Your task to perform on an android device: open app "McDonald's" (install if not already installed) and enter user name: "copes@yahoo.com" and password: "Rhenish" Image 0: 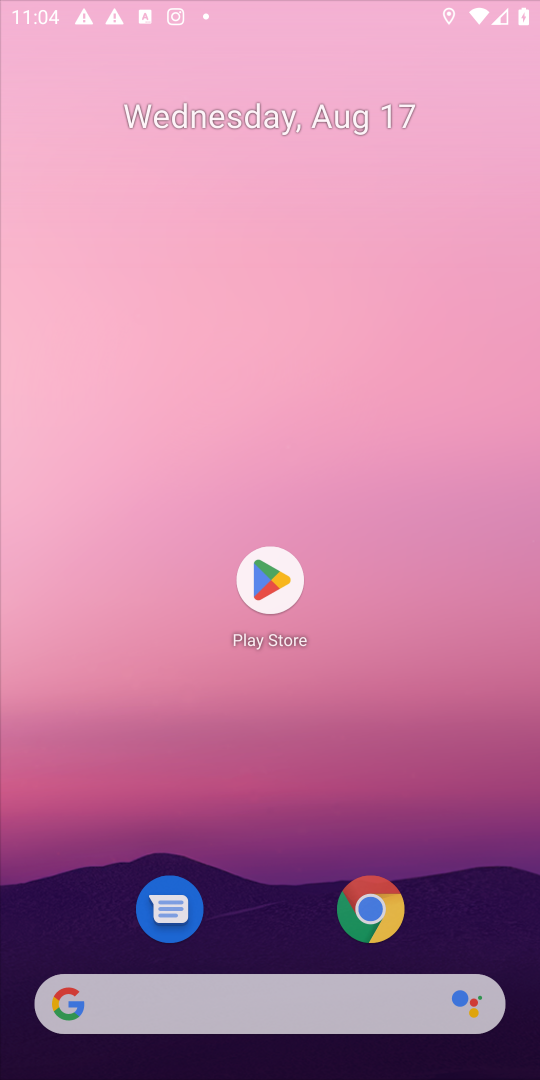
Step 0: press home button
Your task to perform on an android device: open app "McDonald's" (install if not already installed) and enter user name: "copes@yahoo.com" and password: "Rhenish" Image 1: 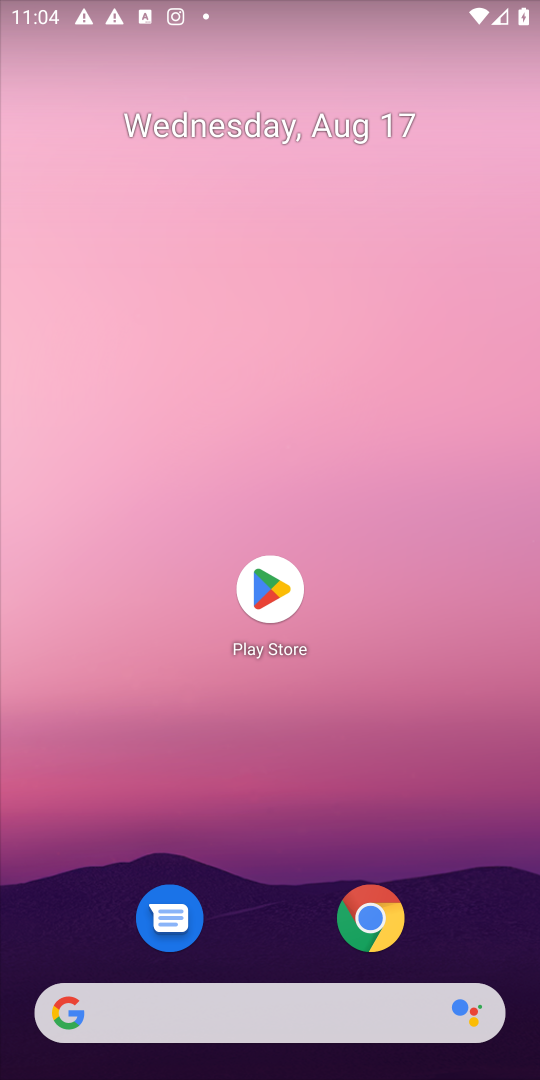
Step 1: click (274, 588)
Your task to perform on an android device: open app "McDonald's" (install if not already installed) and enter user name: "copes@yahoo.com" and password: "Rhenish" Image 2: 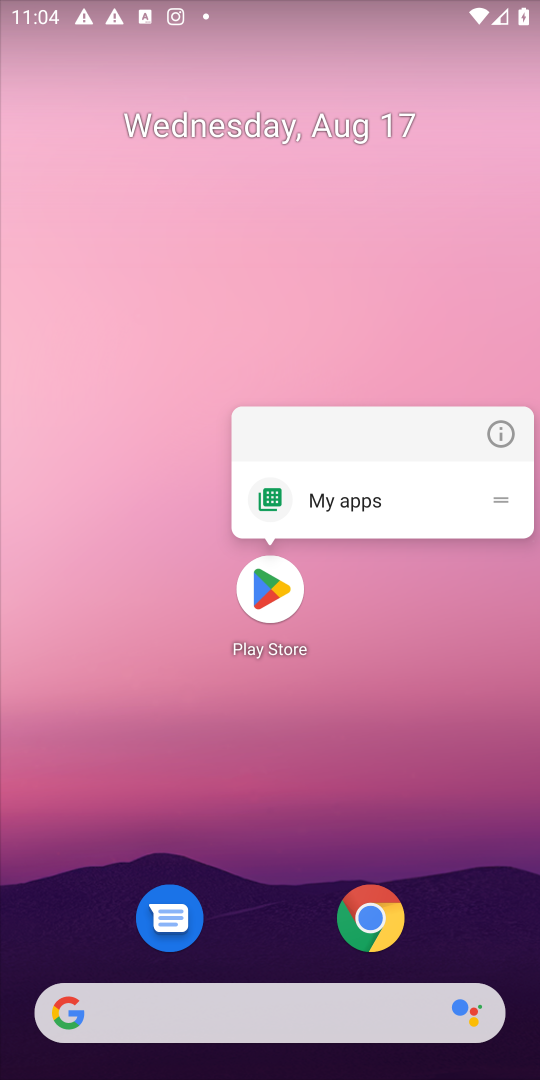
Step 2: click (274, 590)
Your task to perform on an android device: open app "McDonald's" (install if not already installed) and enter user name: "copes@yahoo.com" and password: "Rhenish" Image 3: 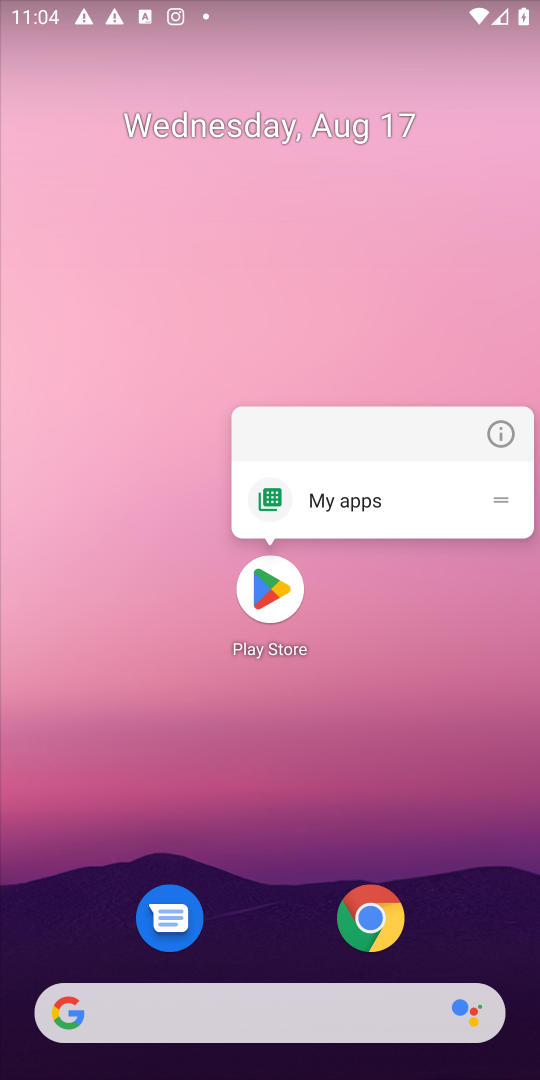
Step 3: click (265, 594)
Your task to perform on an android device: open app "McDonald's" (install if not already installed) and enter user name: "copes@yahoo.com" and password: "Rhenish" Image 4: 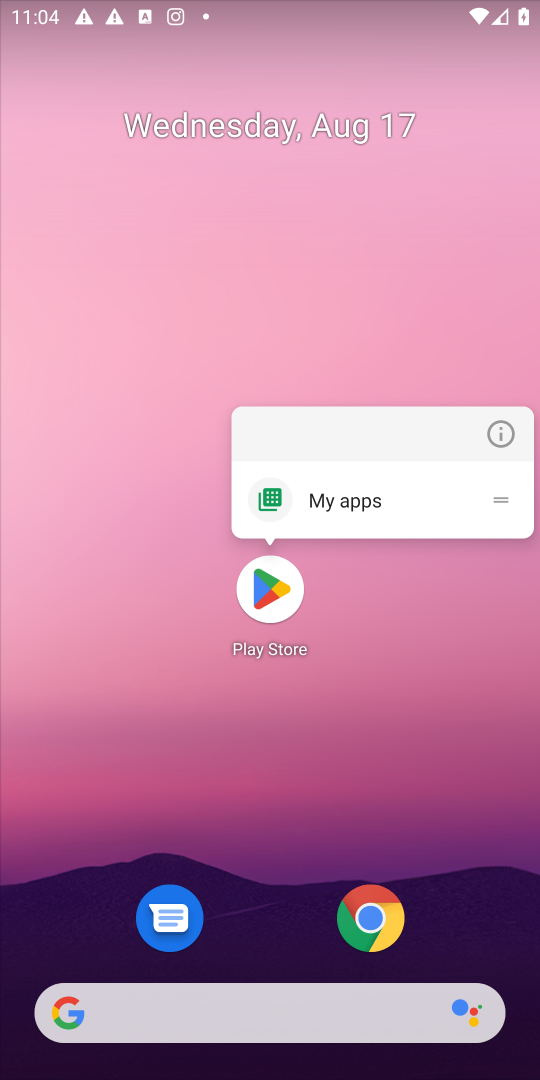
Step 4: click (265, 594)
Your task to perform on an android device: open app "McDonald's" (install if not already installed) and enter user name: "copes@yahoo.com" and password: "Rhenish" Image 5: 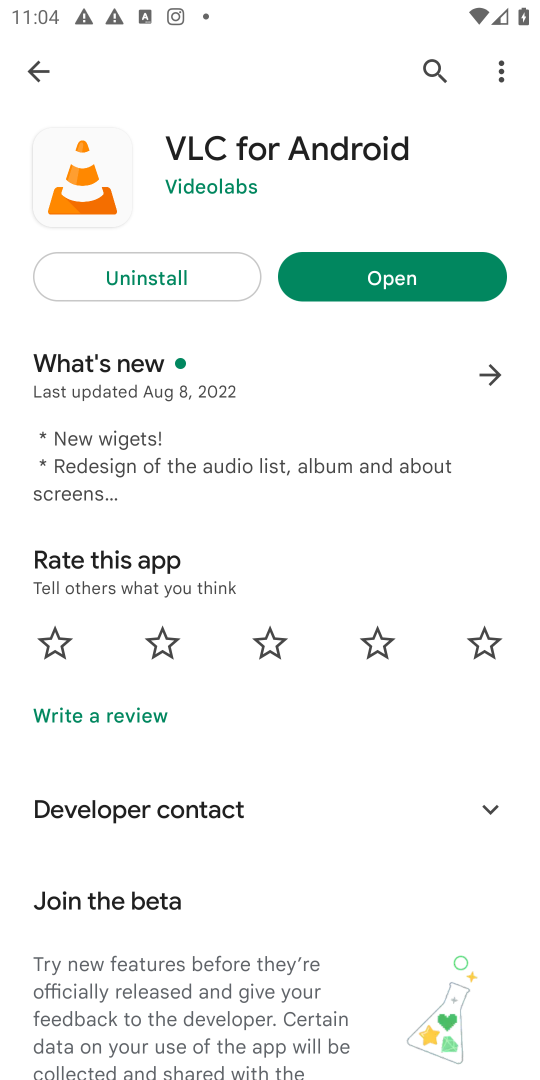
Step 5: click (429, 62)
Your task to perform on an android device: open app "McDonald's" (install if not already installed) and enter user name: "copes@yahoo.com" and password: "Rhenish" Image 6: 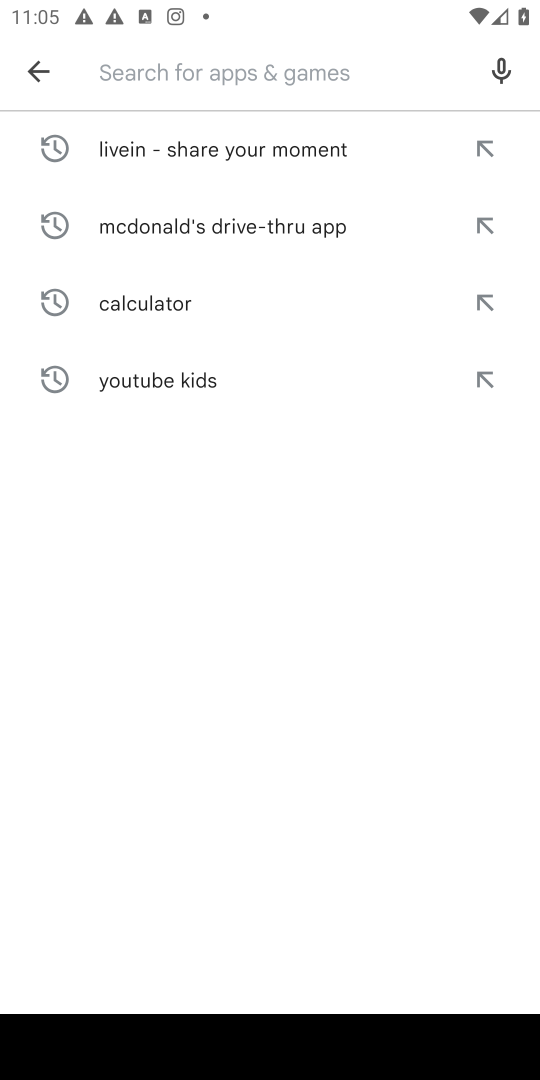
Step 6: type "McDonald's"
Your task to perform on an android device: open app "McDonald's" (install if not already installed) and enter user name: "copes@yahoo.com" and password: "Rhenish" Image 7: 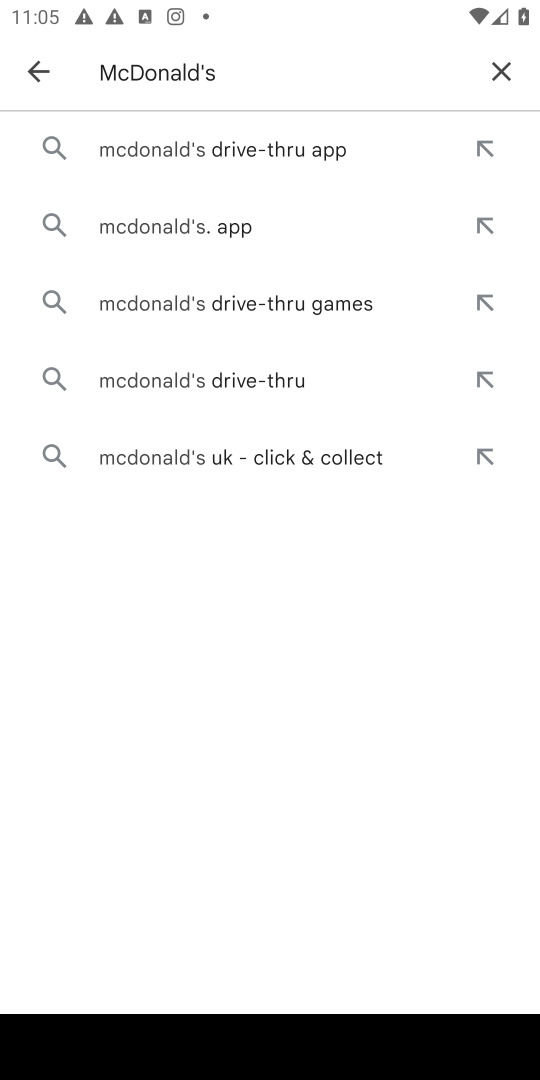
Step 7: click (255, 141)
Your task to perform on an android device: open app "McDonald's" (install if not already installed) and enter user name: "copes@yahoo.com" and password: "Rhenish" Image 8: 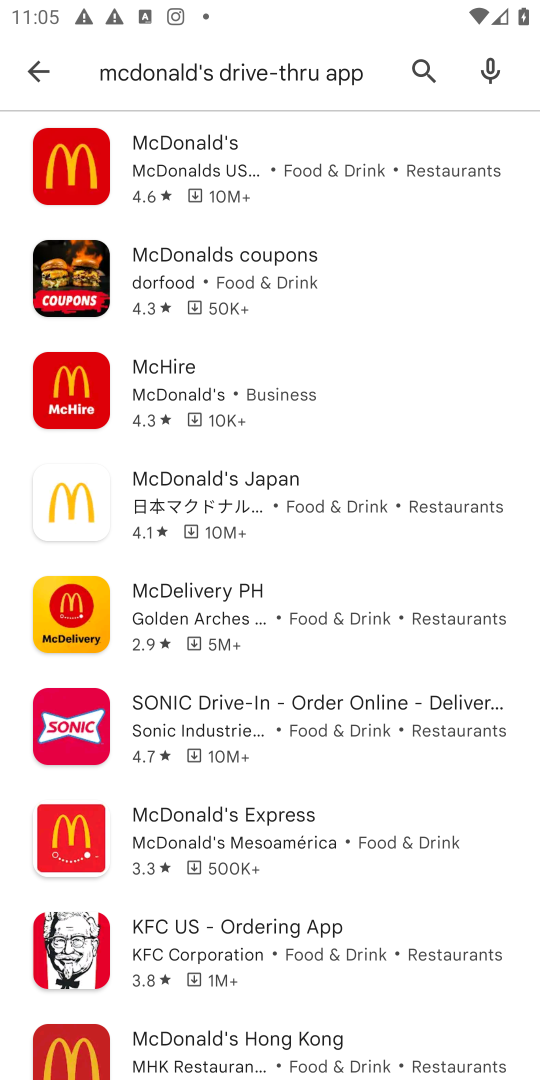
Step 8: click (205, 164)
Your task to perform on an android device: open app "McDonald's" (install if not already installed) and enter user name: "copes@yahoo.com" and password: "Rhenish" Image 9: 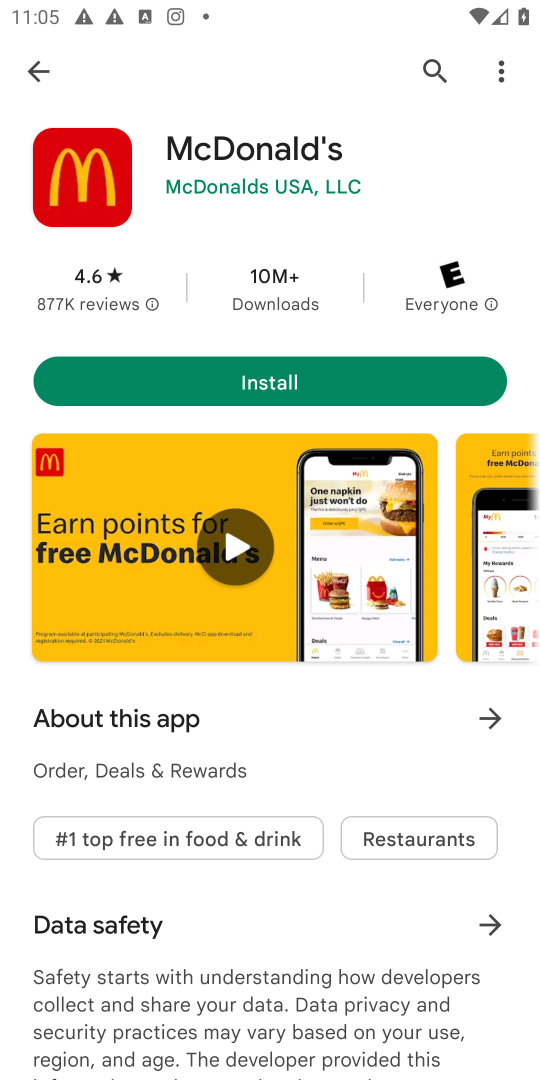
Step 9: click (303, 393)
Your task to perform on an android device: open app "McDonald's" (install if not already installed) and enter user name: "copes@yahoo.com" and password: "Rhenish" Image 10: 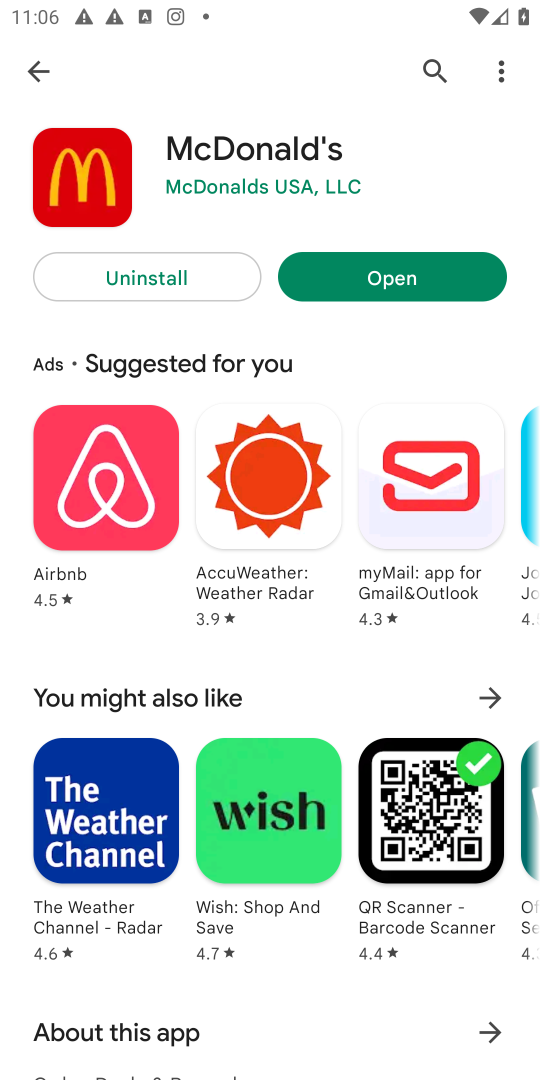
Step 10: click (430, 282)
Your task to perform on an android device: open app "McDonald's" (install if not already installed) and enter user name: "copes@yahoo.com" and password: "Rhenish" Image 11: 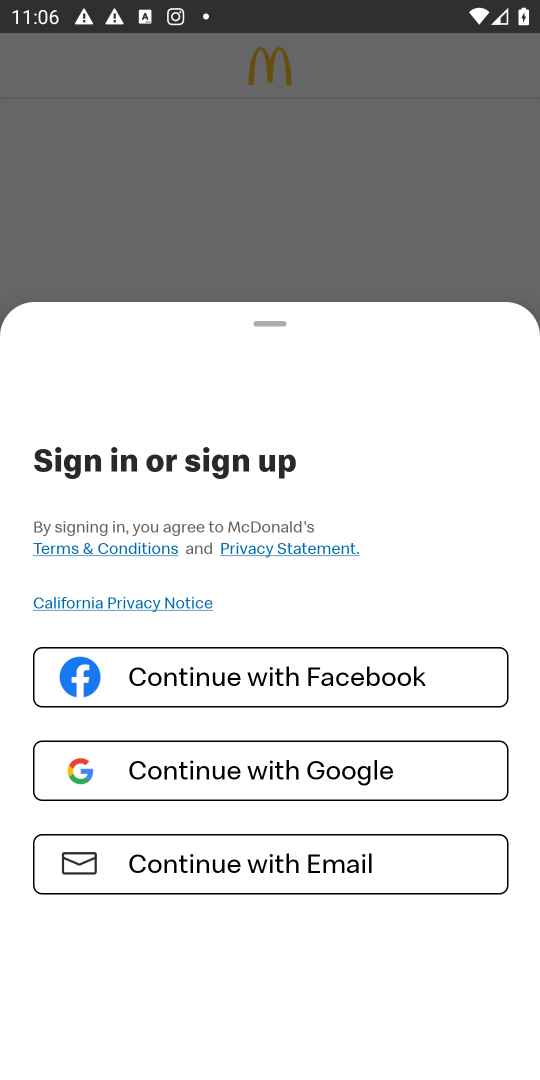
Step 11: click (238, 859)
Your task to perform on an android device: open app "McDonald's" (install if not already installed) and enter user name: "copes@yahoo.com" and password: "Rhenish" Image 12: 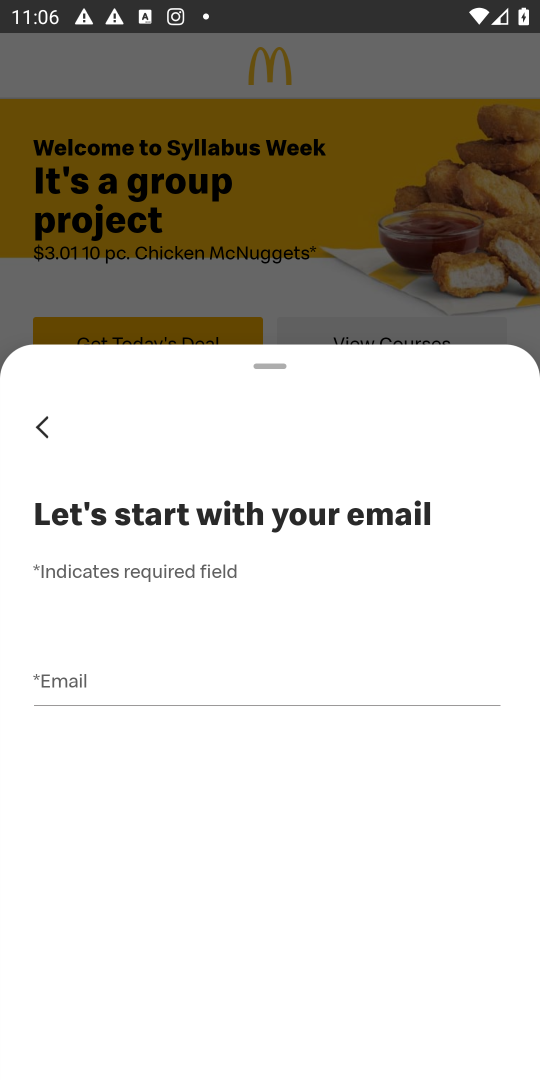
Step 12: click (55, 670)
Your task to perform on an android device: open app "McDonald's" (install if not already installed) and enter user name: "copes@yahoo.com" and password: "Rhenish" Image 13: 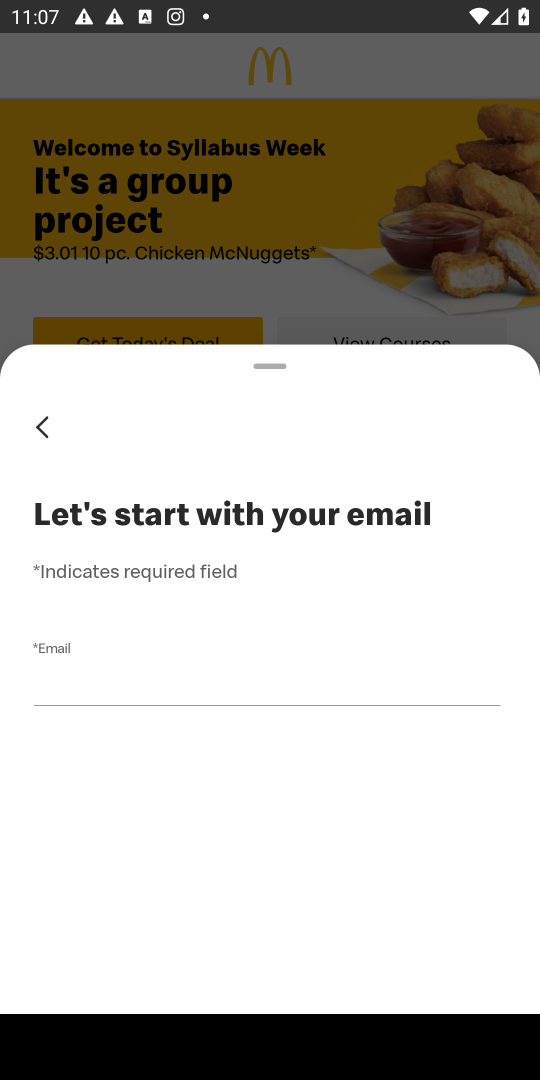
Step 13: type "copes@yahoo.com"
Your task to perform on an android device: open app "McDonald's" (install if not already installed) and enter user name: "copes@yahoo.com" and password: "Rhenish" Image 14: 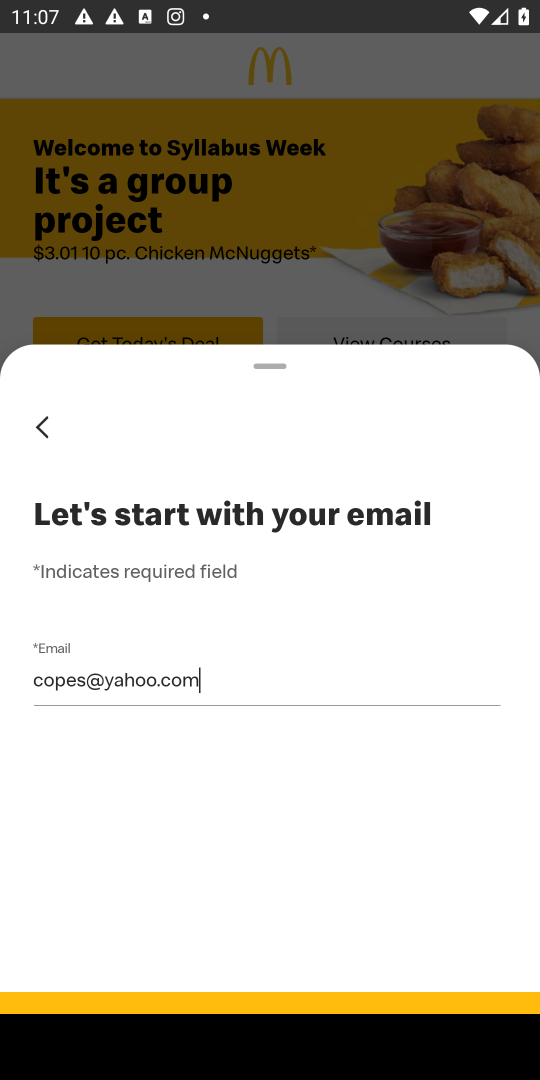
Step 14: task complete